Your task to perform on an android device: toggle wifi Image 0: 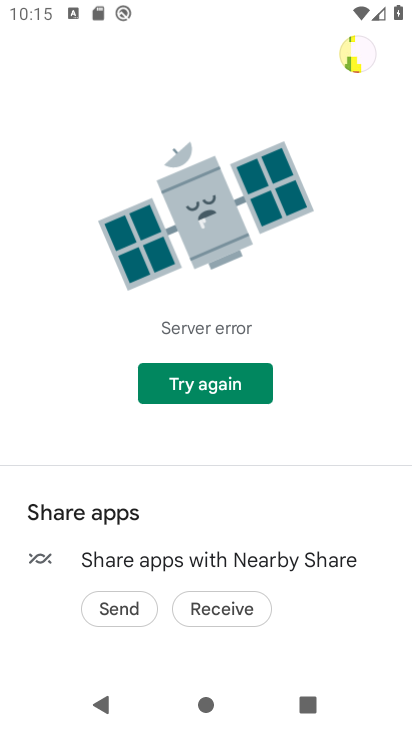
Step 0: press home button
Your task to perform on an android device: toggle wifi Image 1: 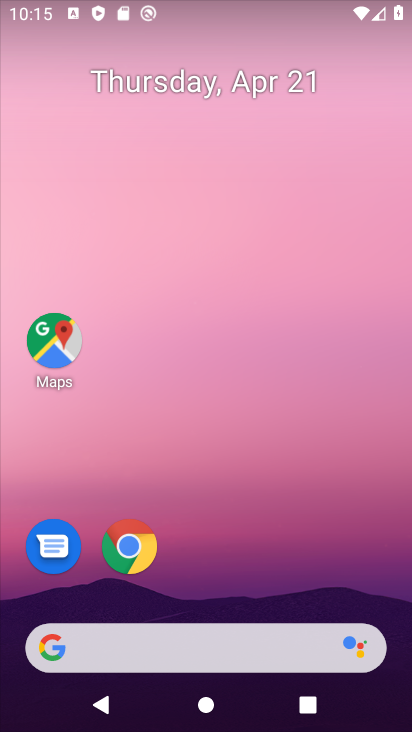
Step 1: drag from (383, 606) to (258, 102)
Your task to perform on an android device: toggle wifi Image 2: 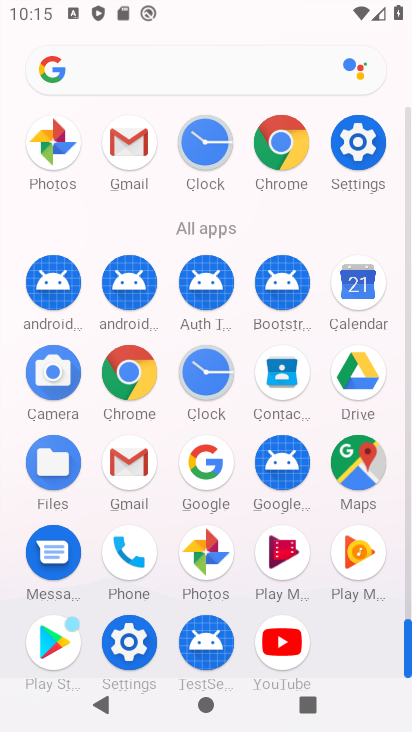
Step 2: click (129, 644)
Your task to perform on an android device: toggle wifi Image 3: 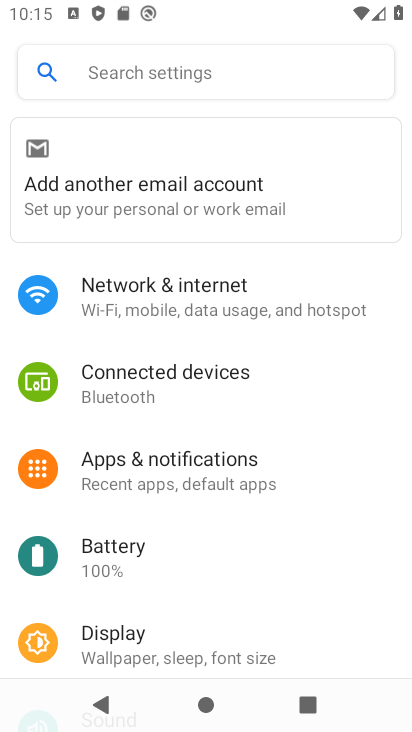
Step 3: click (107, 298)
Your task to perform on an android device: toggle wifi Image 4: 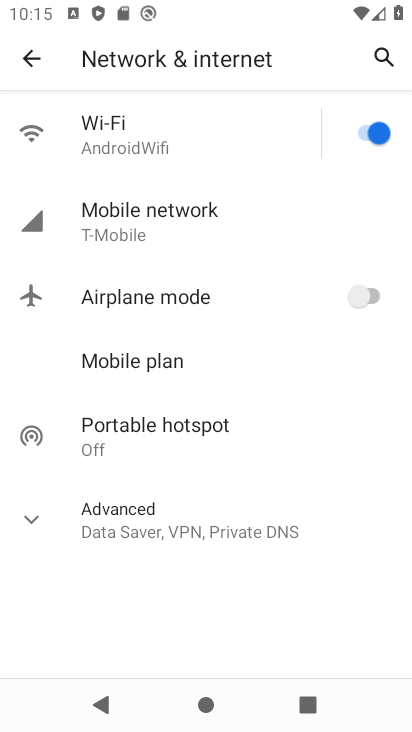
Step 4: click (362, 130)
Your task to perform on an android device: toggle wifi Image 5: 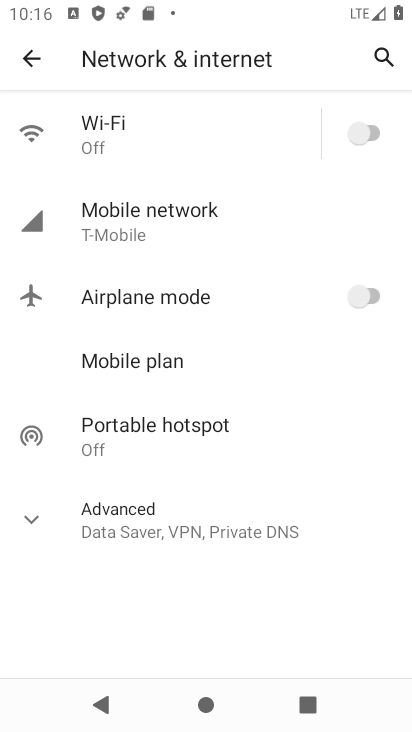
Step 5: task complete